Your task to perform on an android device: find photos in the google photos app Image 0: 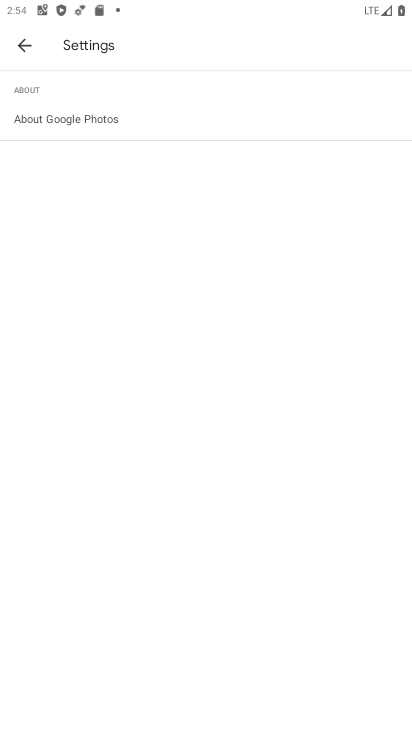
Step 0: press home button
Your task to perform on an android device: find photos in the google photos app Image 1: 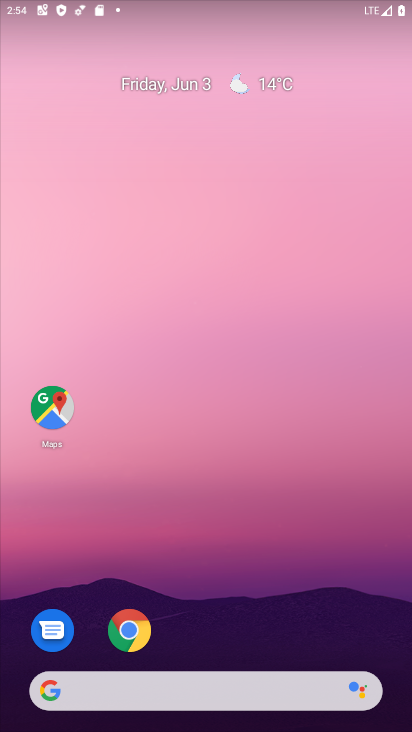
Step 1: drag from (238, 628) to (206, 246)
Your task to perform on an android device: find photos in the google photos app Image 2: 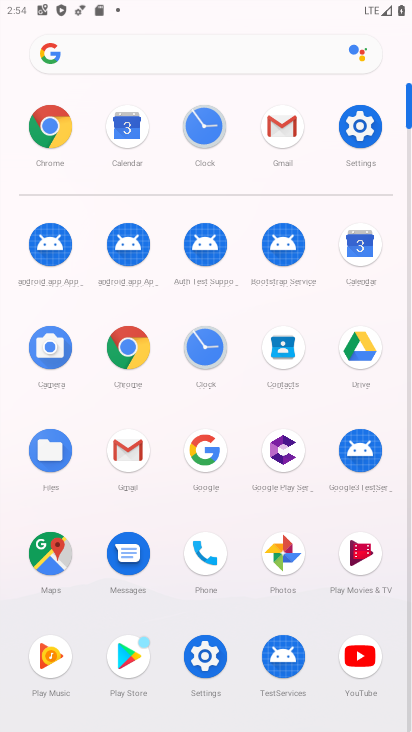
Step 2: click (285, 562)
Your task to perform on an android device: find photos in the google photos app Image 3: 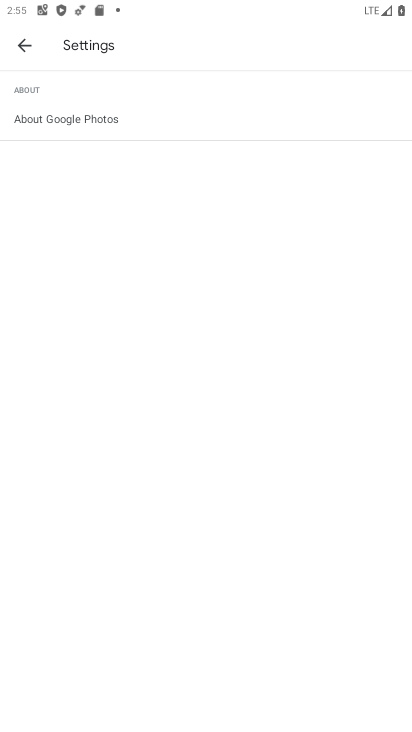
Step 3: click (29, 51)
Your task to perform on an android device: find photos in the google photos app Image 4: 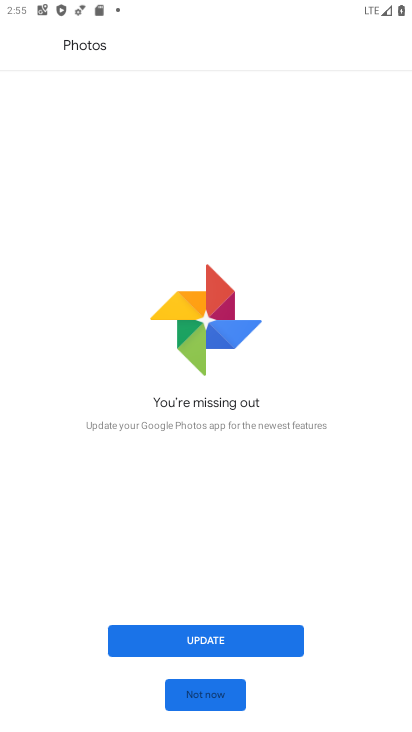
Step 4: click (234, 641)
Your task to perform on an android device: find photos in the google photos app Image 5: 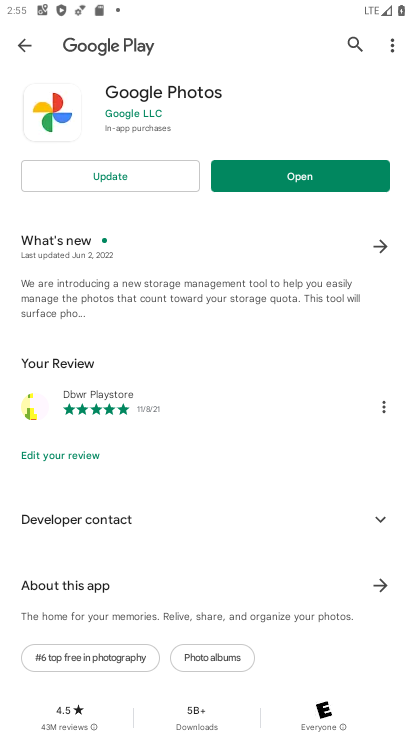
Step 5: click (130, 183)
Your task to perform on an android device: find photos in the google photos app Image 6: 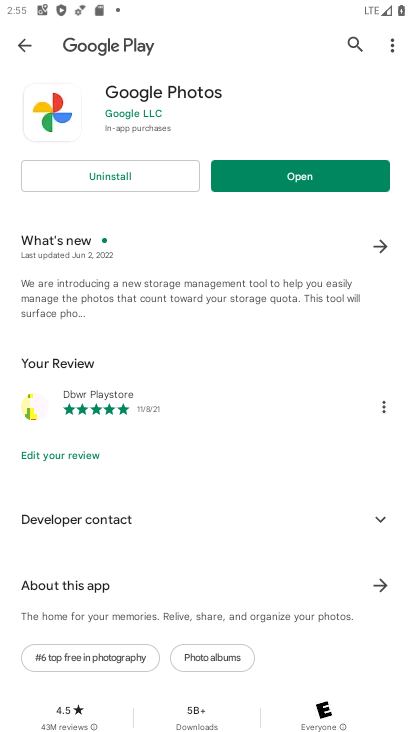
Step 6: click (314, 175)
Your task to perform on an android device: find photos in the google photos app Image 7: 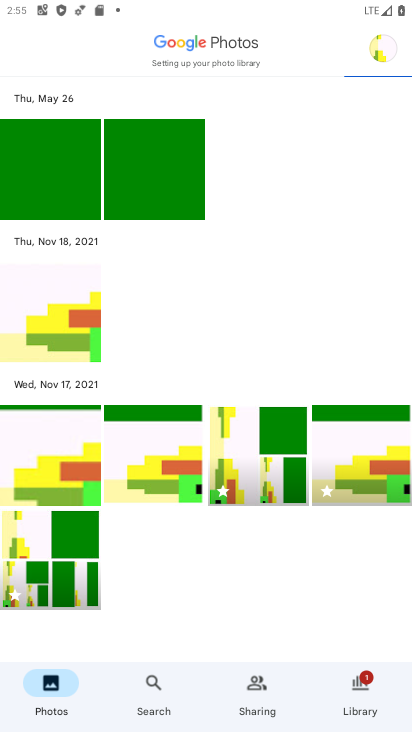
Step 7: task complete